Your task to perform on an android device: toggle priority inbox in the gmail app Image 0: 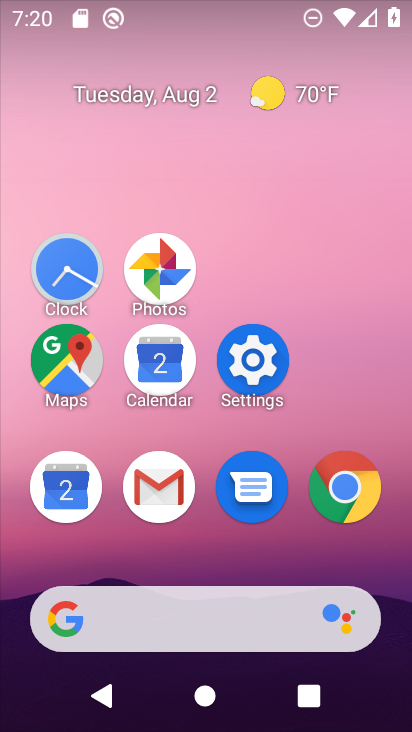
Step 0: click (163, 477)
Your task to perform on an android device: toggle priority inbox in the gmail app Image 1: 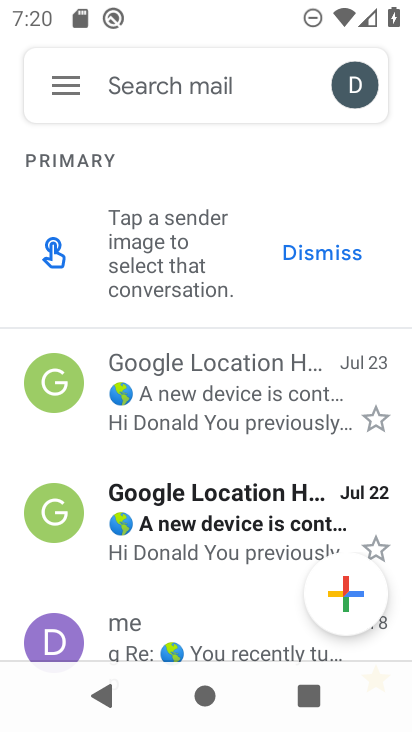
Step 1: click (60, 83)
Your task to perform on an android device: toggle priority inbox in the gmail app Image 2: 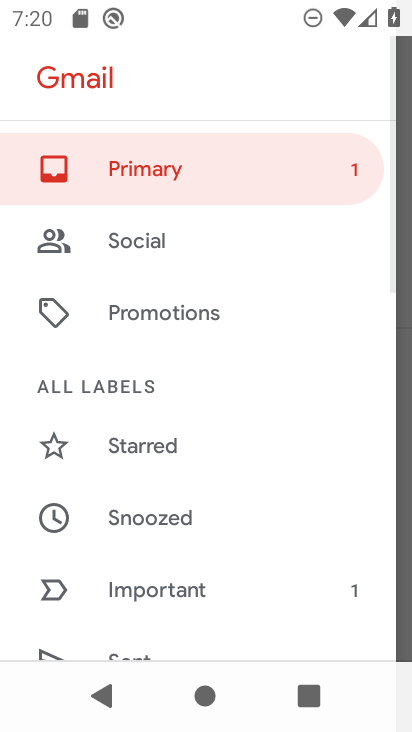
Step 2: drag from (273, 479) to (243, 2)
Your task to perform on an android device: toggle priority inbox in the gmail app Image 3: 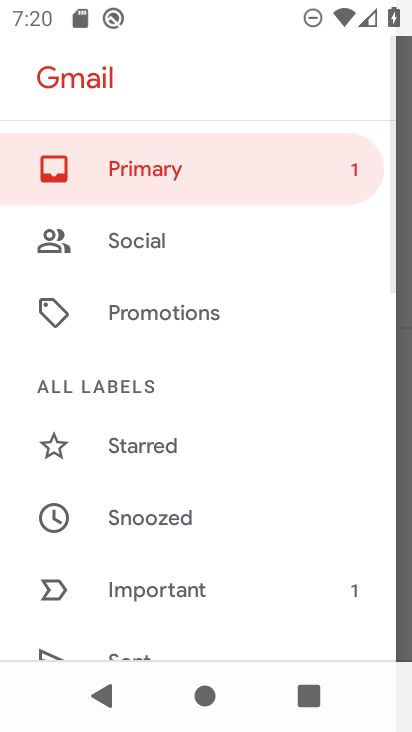
Step 3: drag from (269, 548) to (233, 152)
Your task to perform on an android device: toggle priority inbox in the gmail app Image 4: 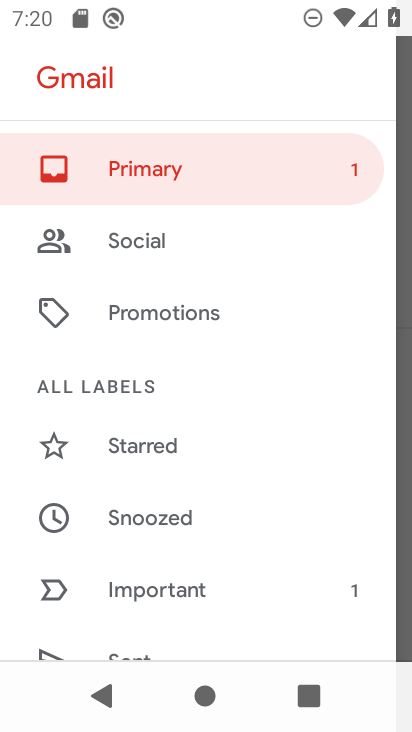
Step 4: drag from (199, 561) to (194, 171)
Your task to perform on an android device: toggle priority inbox in the gmail app Image 5: 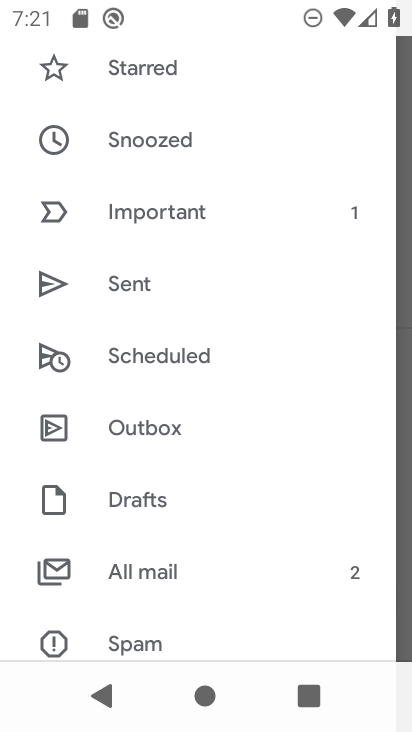
Step 5: drag from (219, 581) to (225, 150)
Your task to perform on an android device: toggle priority inbox in the gmail app Image 6: 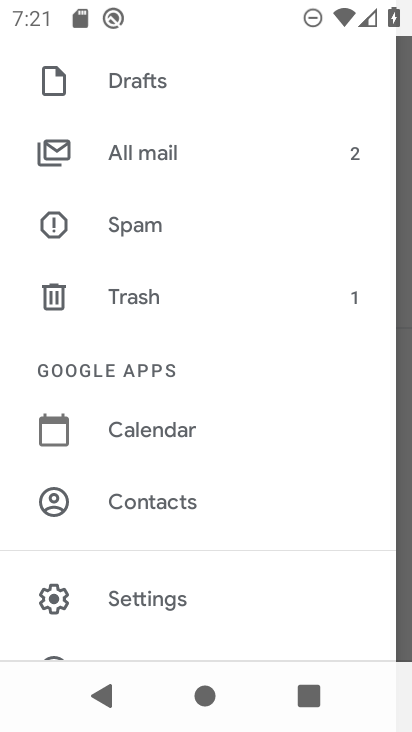
Step 6: click (123, 606)
Your task to perform on an android device: toggle priority inbox in the gmail app Image 7: 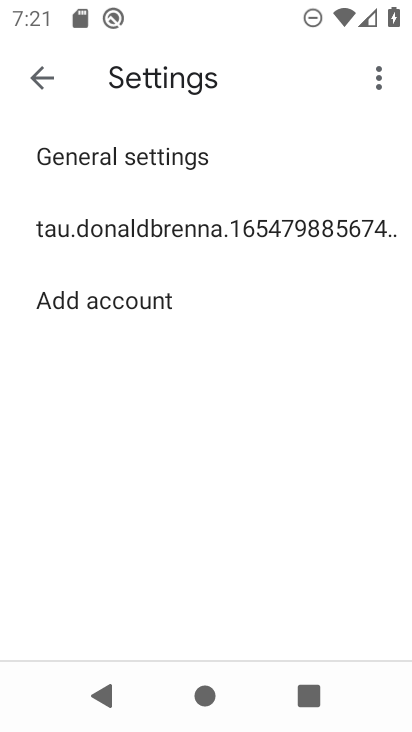
Step 7: click (80, 229)
Your task to perform on an android device: toggle priority inbox in the gmail app Image 8: 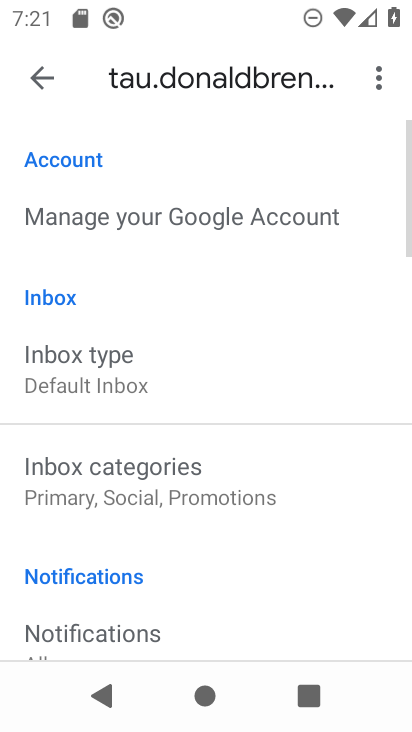
Step 8: click (77, 355)
Your task to perform on an android device: toggle priority inbox in the gmail app Image 9: 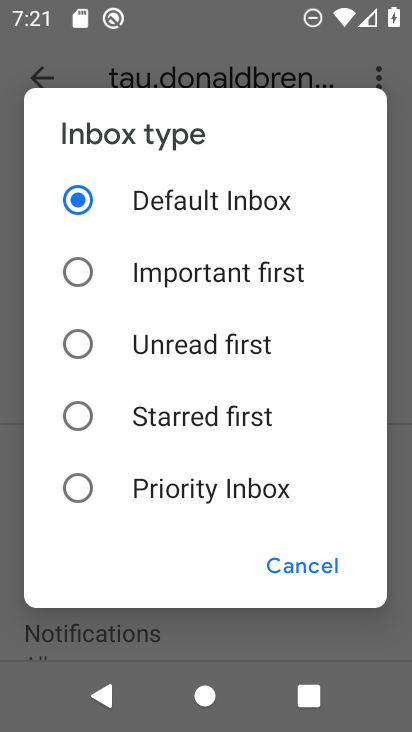
Step 9: click (84, 493)
Your task to perform on an android device: toggle priority inbox in the gmail app Image 10: 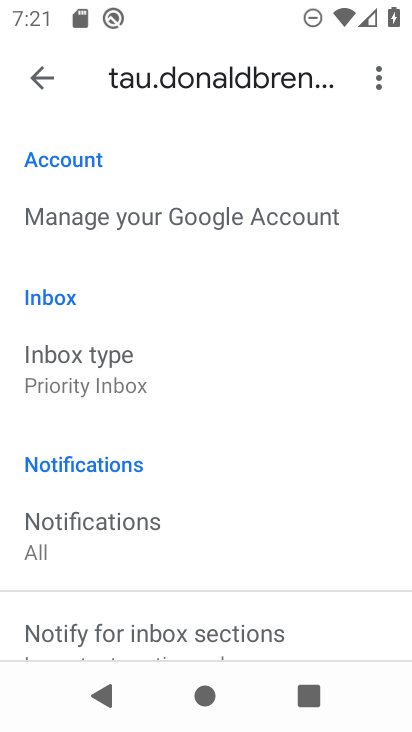
Step 10: task complete